Your task to perform on an android device: Google the capital of Chile Image 0: 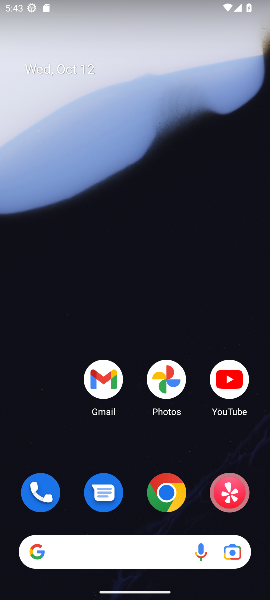
Step 0: click (172, 497)
Your task to perform on an android device: Google the capital of Chile Image 1: 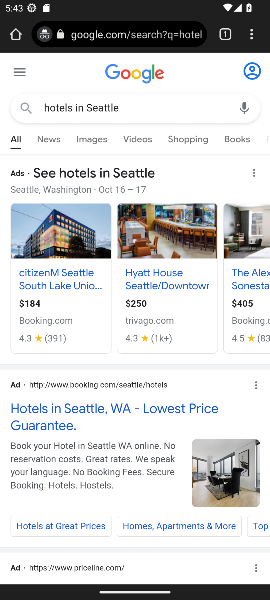
Step 1: click (104, 31)
Your task to perform on an android device: Google the capital of Chile Image 2: 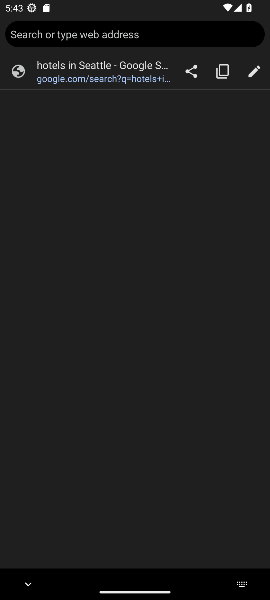
Step 2: type "capital of Chile"
Your task to perform on an android device: Google the capital of Chile Image 3: 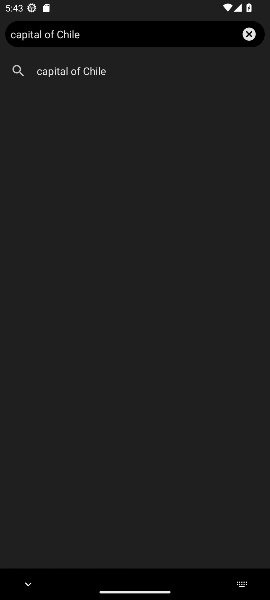
Step 3: click (82, 70)
Your task to perform on an android device: Google the capital of Chile Image 4: 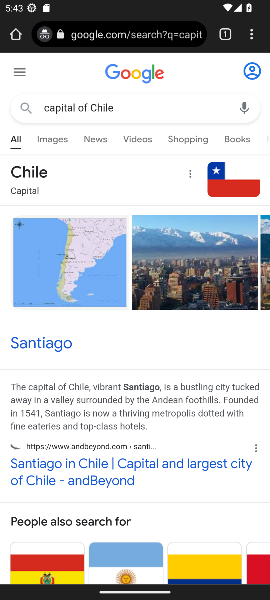
Step 4: click (42, 346)
Your task to perform on an android device: Google the capital of Chile Image 5: 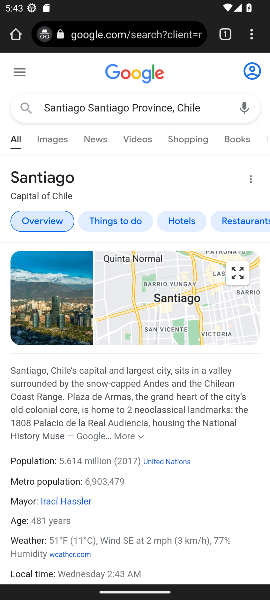
Step 5: task complete